Your task to perform on an android device: Open calendar and show me the fourth week of next month Image 0: 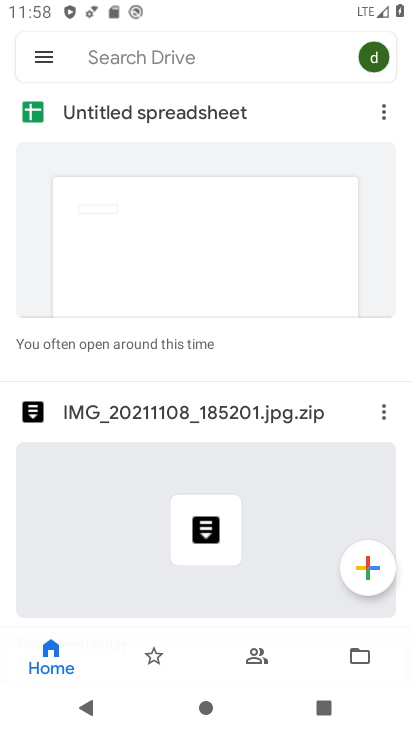
Step 0: press home button
Your task to perform on an android device: Open calendar and show me the fourth week of next month Image 1: 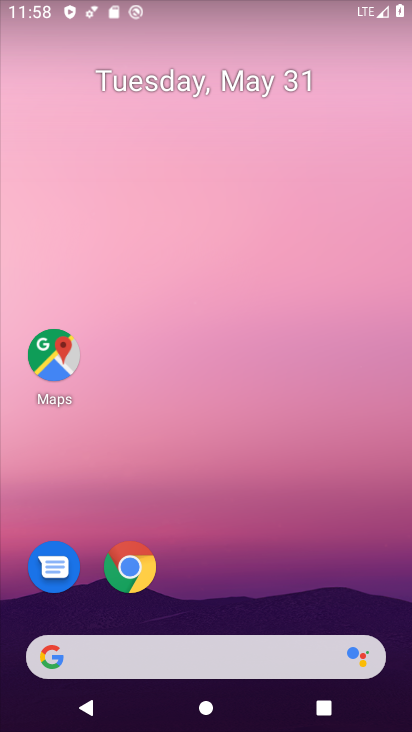
Step 1: drag from (250, 607) to (235, 136)
Your task to perform on an android device: Open calendar and show me the fourth week of next month Image 2: 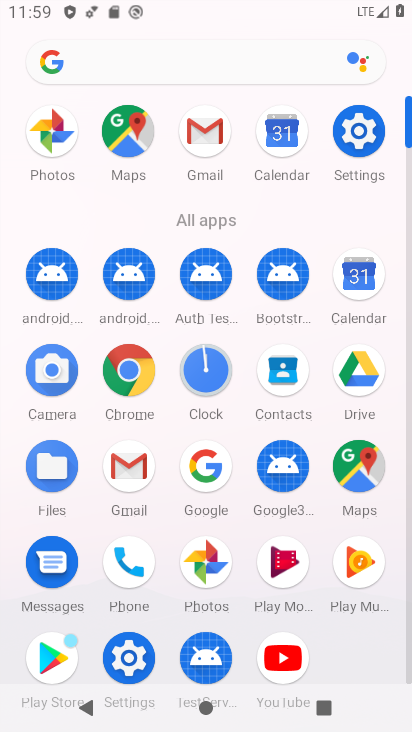
Step 2: click (281, 145)
Your task to perform on an android device: Open calendar and show me the fourth week of next month Image 3: 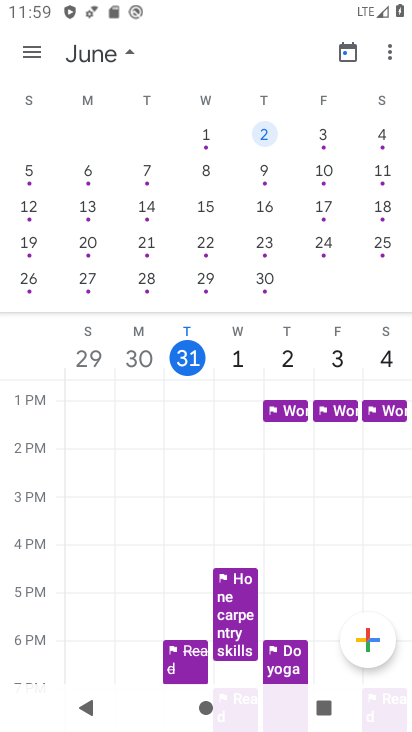
Step 3: click (265, 249)
Your task to perform on an android device: Open calendar and show me the fourth week of next month Image 4: 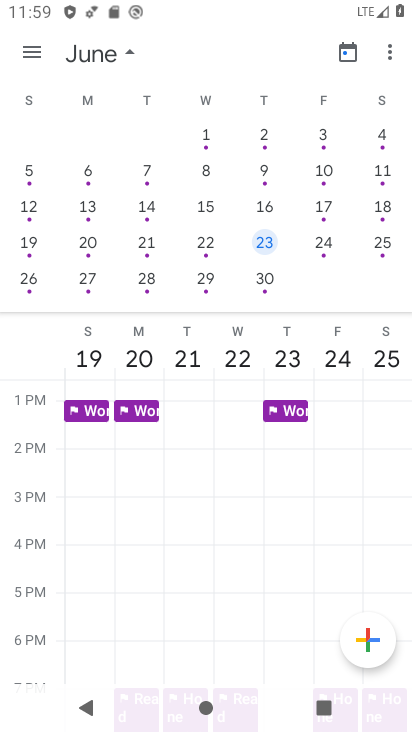
Step 4: task complete